Your task to perform on an android device: check battery use Image 0: 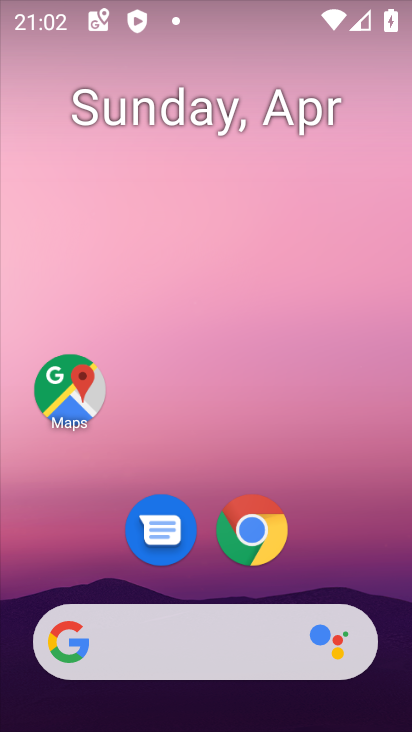
Step 0: drag from (164, 361) to (233, 75)
Your task to perform on an android device: check battery use Image 1: 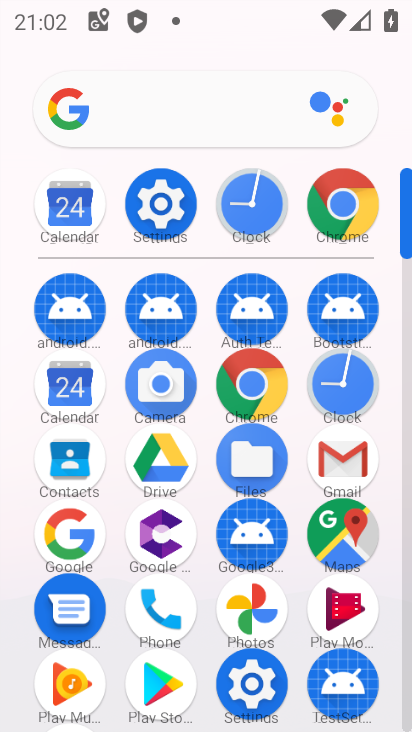
Step 1: click (167, 204)
Your task to perform on an android device: check battery use Image 2: 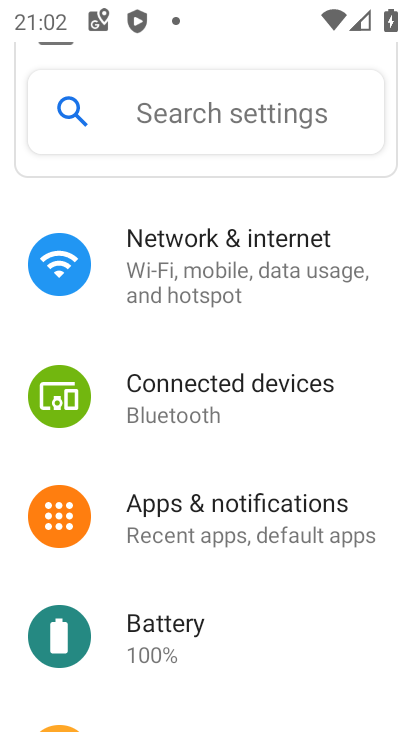
Step 2: click (155, 654)
Your task to perform on an android device: check battery use Image 3: 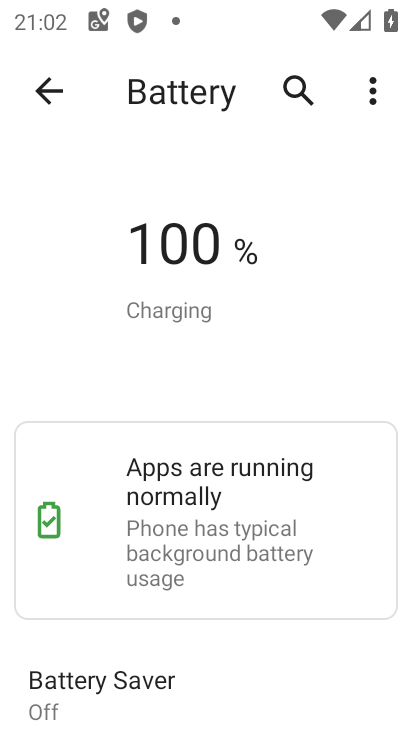
Step 3: task complete